Your task to perform on an android device: allow notifications from all sites in the chrome app Image 0: 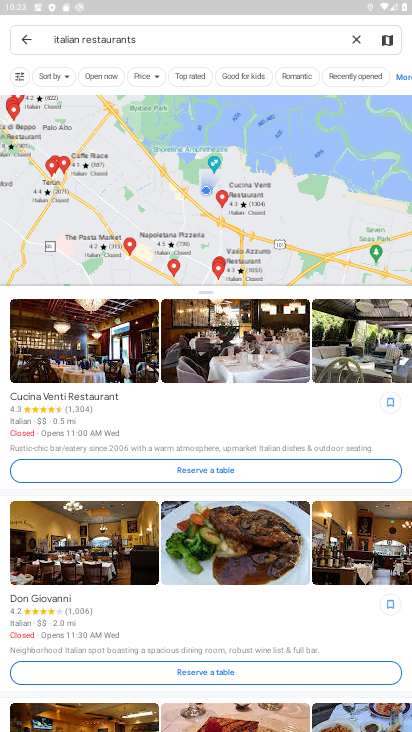
Step 0: press home button
Your task to perform on an android device: allow notifications from all sites in the chrome app Image 1: 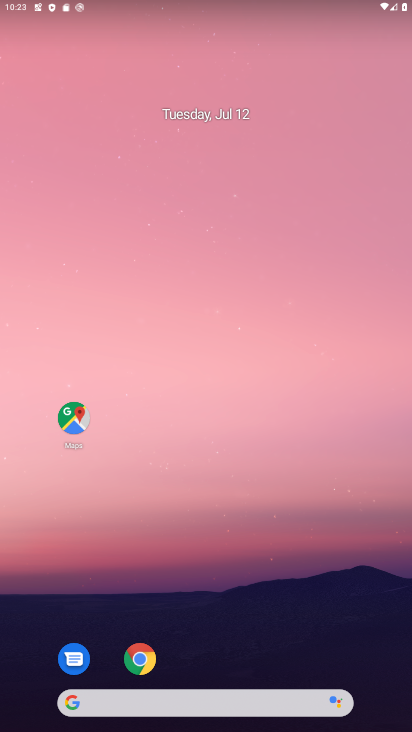
Step 1: click (136, 658)
Your task to perform on an android device: allow notifications from all sites in the chrome app Image 2: 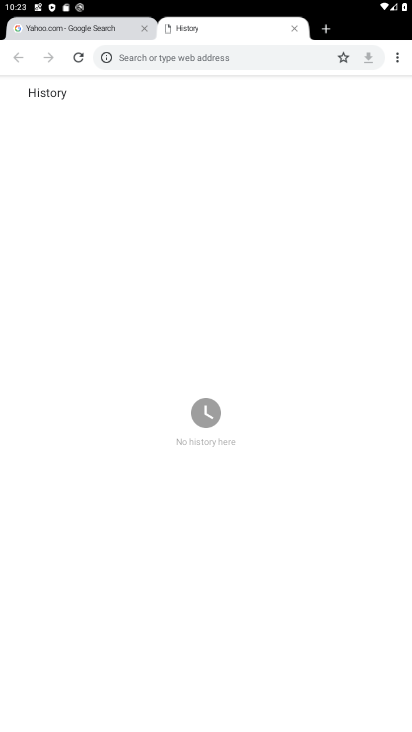
Step 2: press back button
Your task to perform on an android device: allow notifications from all sites in the chrome app Image 3: 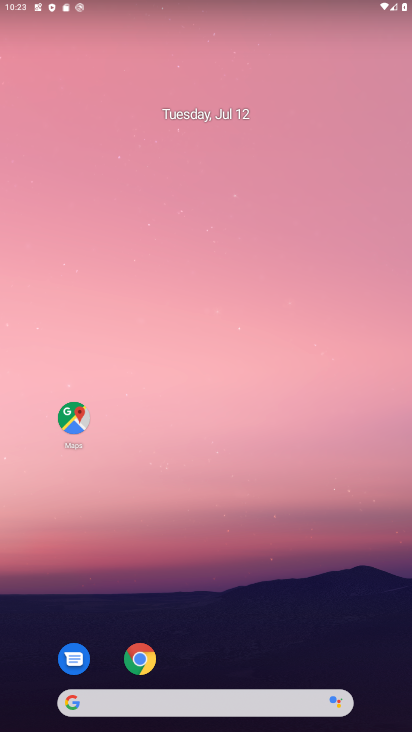
Step 3: click (137, 665)
Your task to perform on an android device: allow notifications from all sites in the chrome app Image 4: 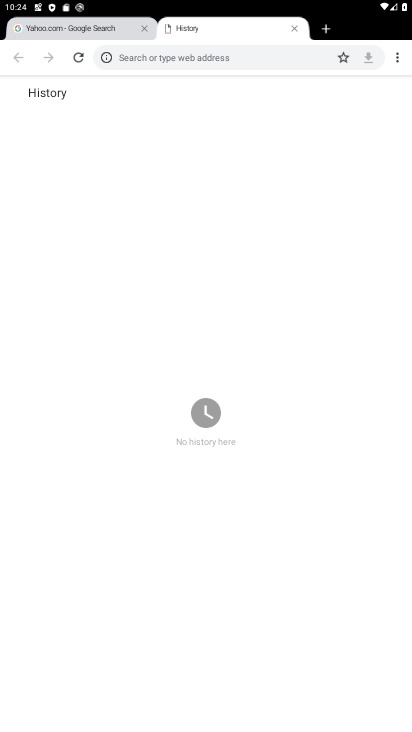
Step 4: task complete